Your task to perform on an android device: Open the stopwatch Image 0: 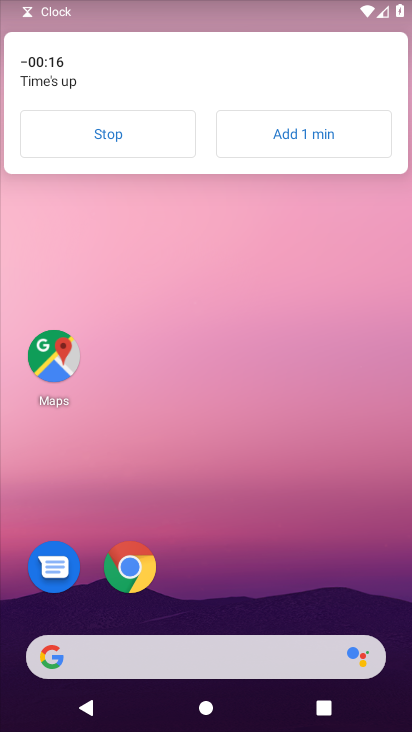
Step 0: drag from (201, 590) to (206, 17)
Your task to perform on an android device: Open the stopwatch Image 1: 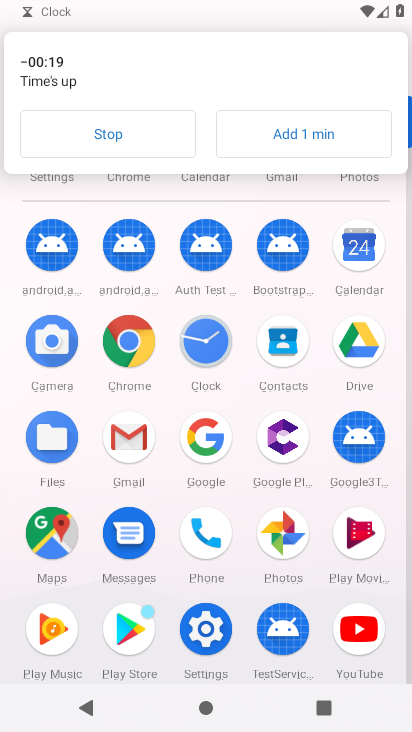
Step 1: click (205, 342)
Your task to perform on an android device: Open the stopwatch Image 2: 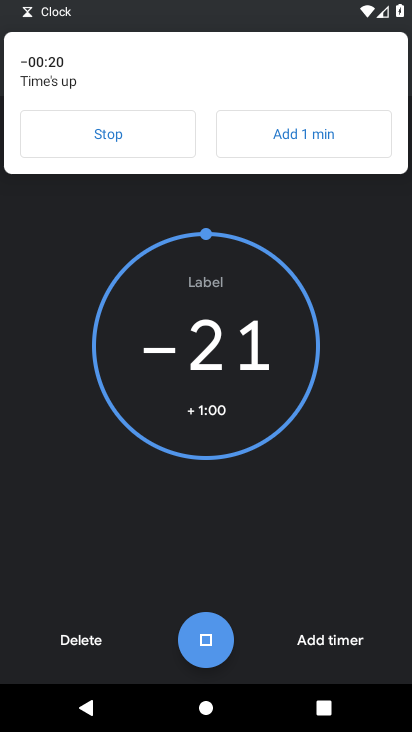
Step 2: click (134, 140)
Your task to perform on an android device: Open the stopwatch Image 3: 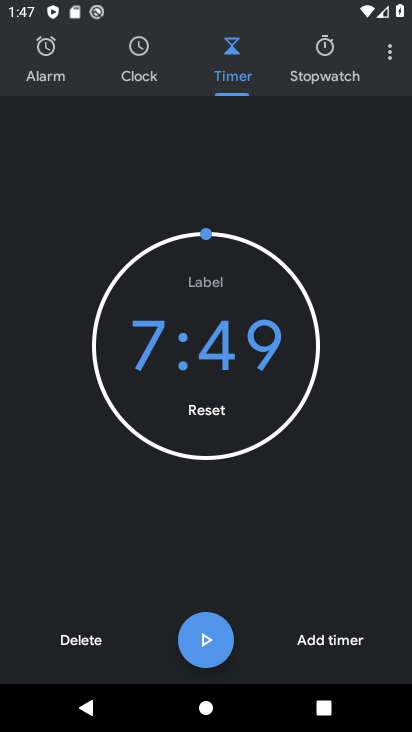
Step 3: click (326, 51)
Your task to perform on an android device: Open the stopwatch Image 4: 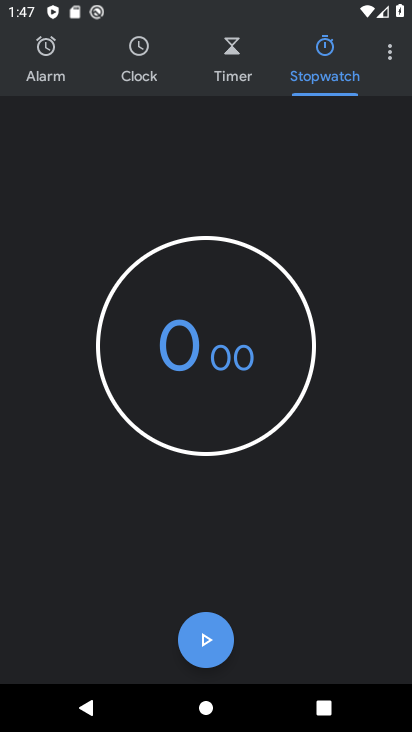
Step 4: click (198, 646)
Your task to perform on an android device: Open the stopwatch Image 5: 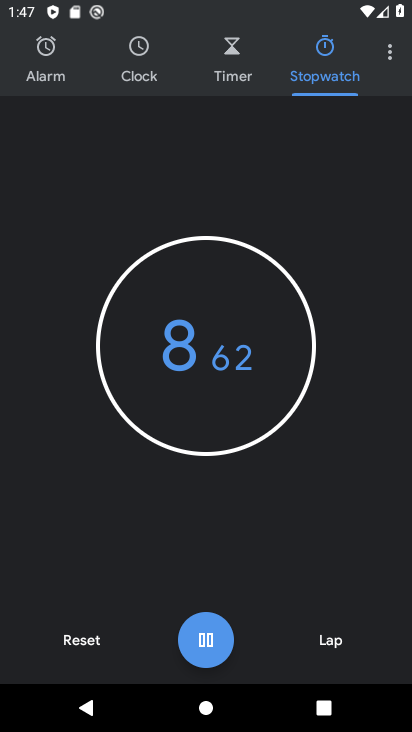
Step 5: task complete